Your task to perform on an android device: Open display settings Image 0: 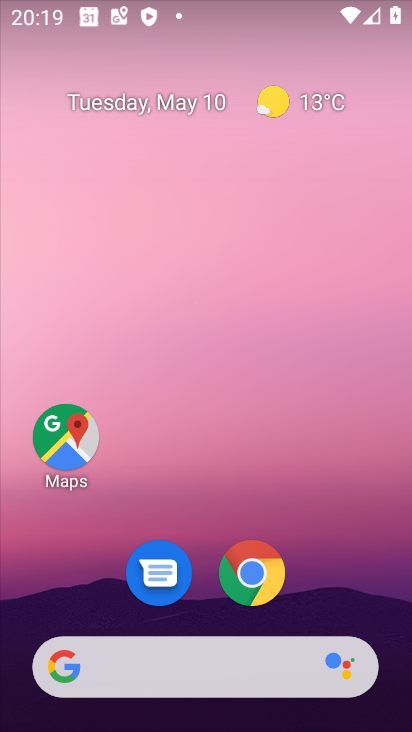
Step 0: press home button
Your task to perform on an android device: Open display settings Image 1: 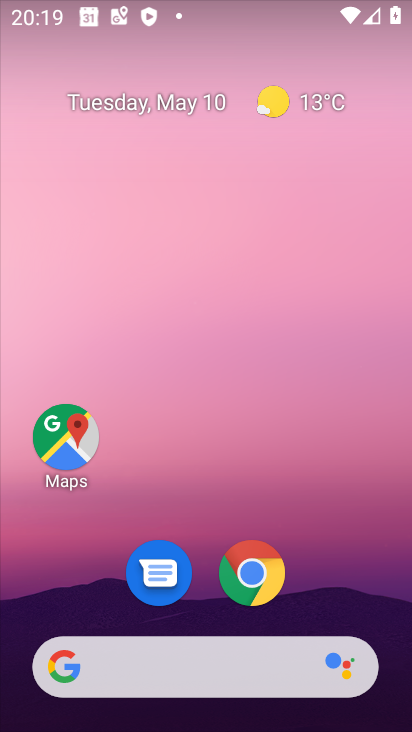
Step 1: drag from (364, 622) to (312, 0)
Your task to perform on an android device: Open display settings Image 2: 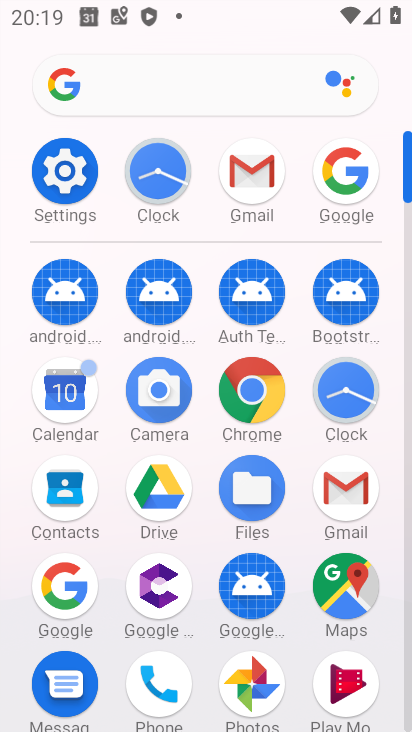
Step 2: click (65, 193)
Your task to perform on an android device: Open display settings Image 3: 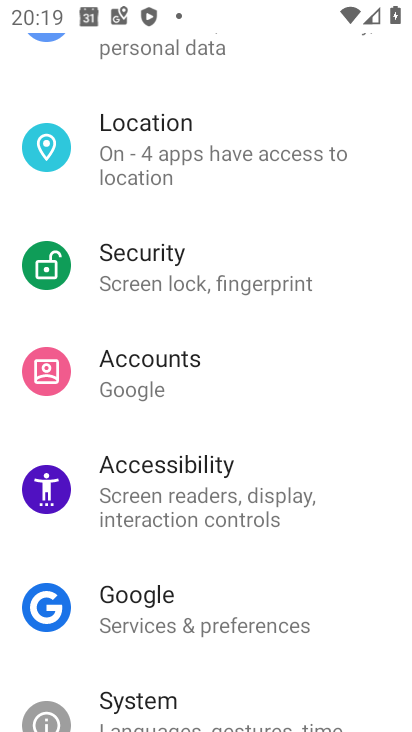
Step 3: drag from (286, 312) to (296, 570)
Your task to perform on an android device: Open display settings Image 4: 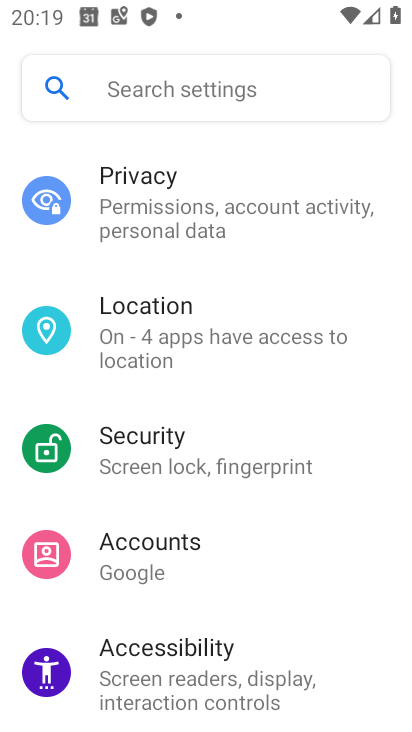
Step 4: drag from (291, 256) to (264, 623)
Your task to perform on an android device: Open display settings Image 5: 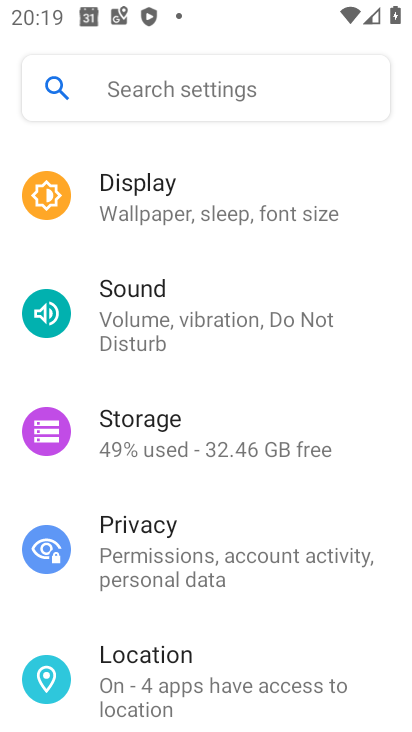
Step 5: click (157, 219)
Your task to perform on an android device: Open display settings Image 6: 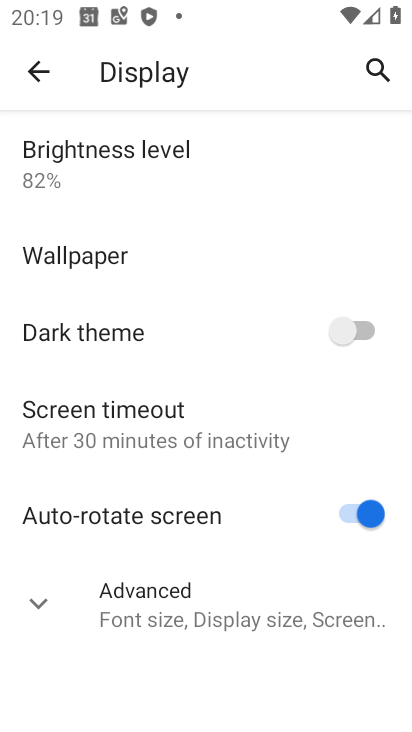
Step 6: task complete